Your task to perform on an android device: change the clock style Image 0: 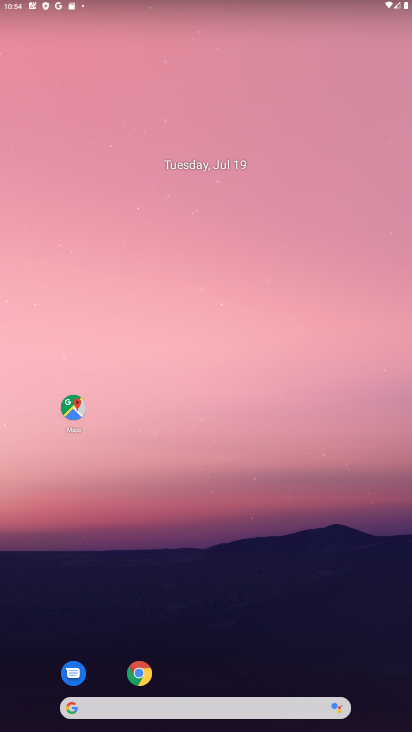
Step 0: drag from (389, 683) to (314, 129)
Your task to perform on an android device: change the clock style Image 1: 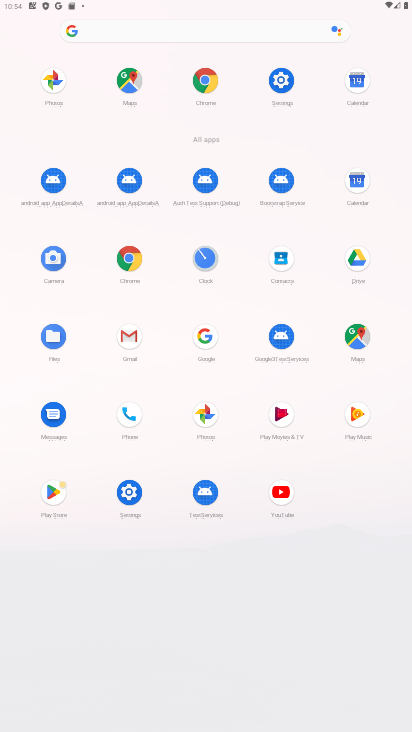
Step 1: click (205, 256)
Your task to perform on an android device: change the clock style Image 2: 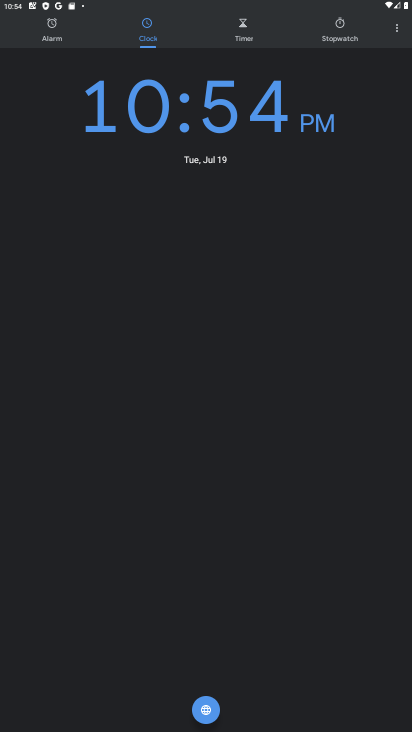
Step 2: click (396, 33)
Your task to perform on an android device: change the clock style Image 3: 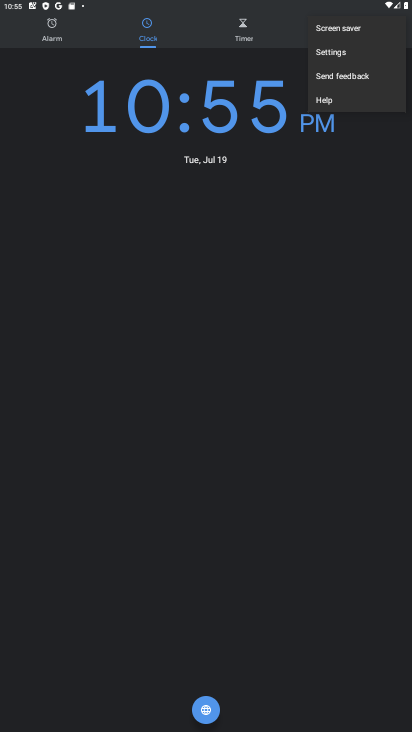
Step 3: click (326, 48)
Your task to perform on an android device: change the clock style Image 4: 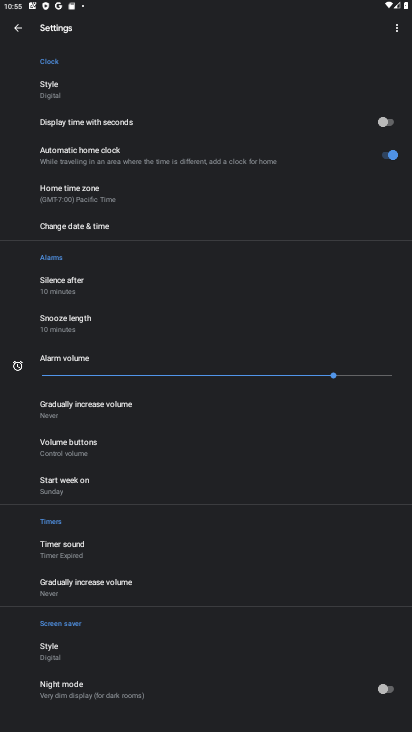
Step 4: click (47, 89)
Your task to perform on an android device: change the clock style Image 5: 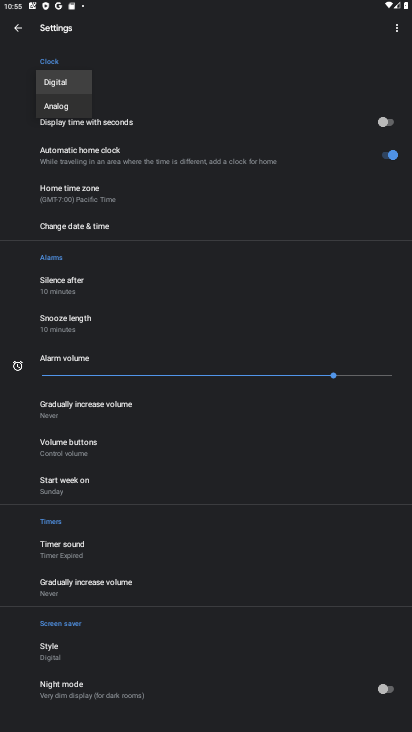
Step 5: click (59, 110)
Your task to perform on an android device: change the clock style Image 6: 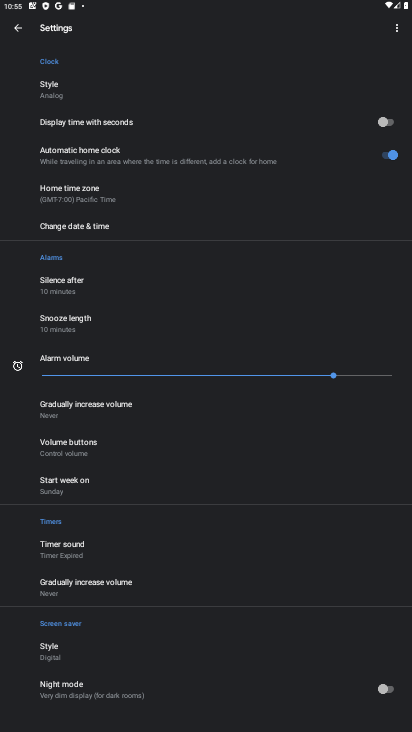
Step 6: task complete